Your task to perform on an android device: delete a single message in the gmail app Image 0: 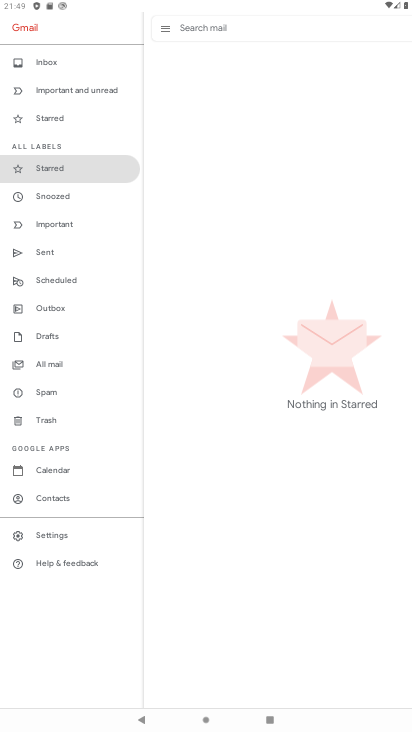
Step 0: press home button
Your task to perform on an android device: delete a single message in the gmail app Image 1: 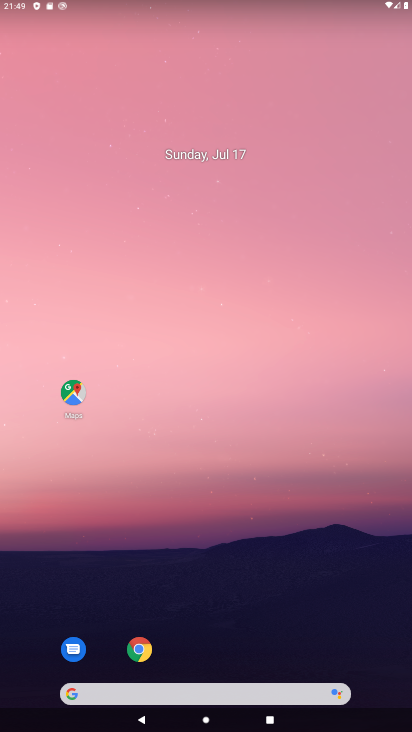
Step 1: drag from (97, 572) to (341, 111)
Your task to perform on an android device: delete a single message in the gmail app Image 2: 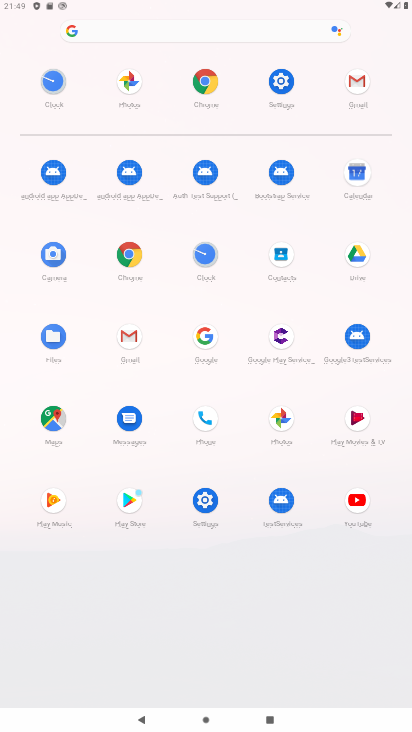
Step 2: click (133, 333)
Your task to perform on an android device: delete a single message in the gmail app Image 3: 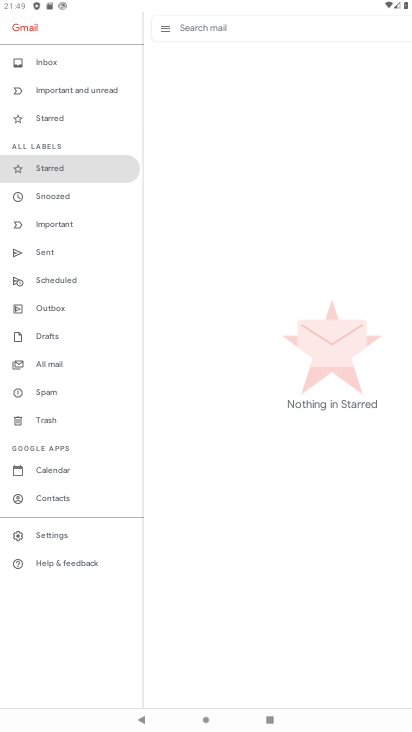
Step 3: click (80, 61)
Your task to perform on an android device: delete a single message in the gmail app Image 4: 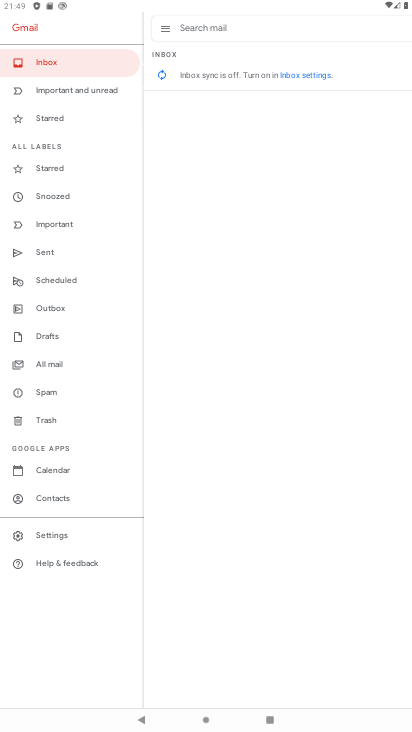
Step 4: click (77, 56)
Your task to perform on an android device: delete a single message in the gmail app Image 5: 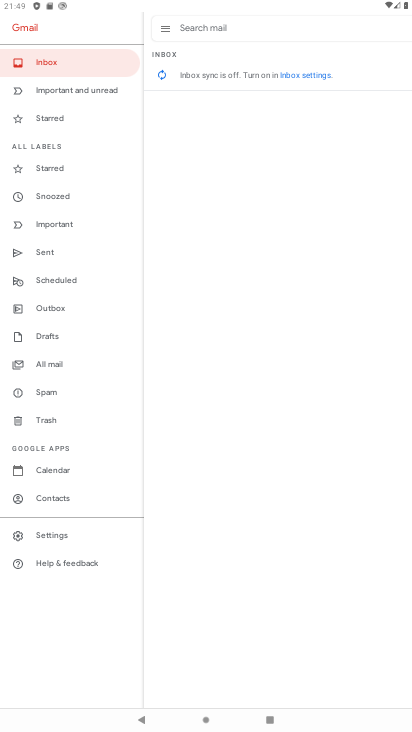
Step 5: task complete